Your task to perform on an android device: Go to Maps Image 0: 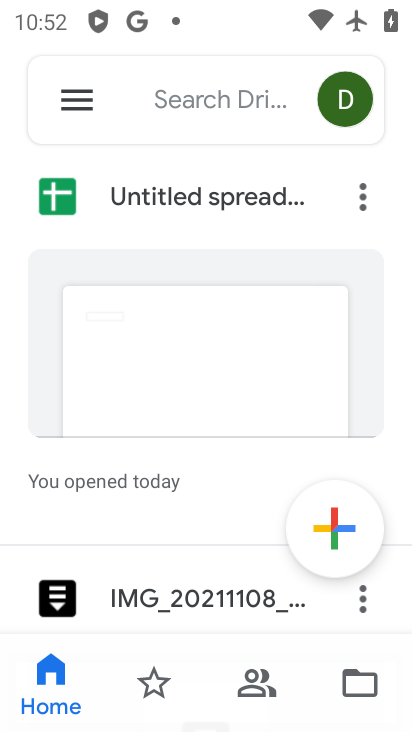
Step 0: press home button
Your task to perform on an android device: Go to Maps Image 1: 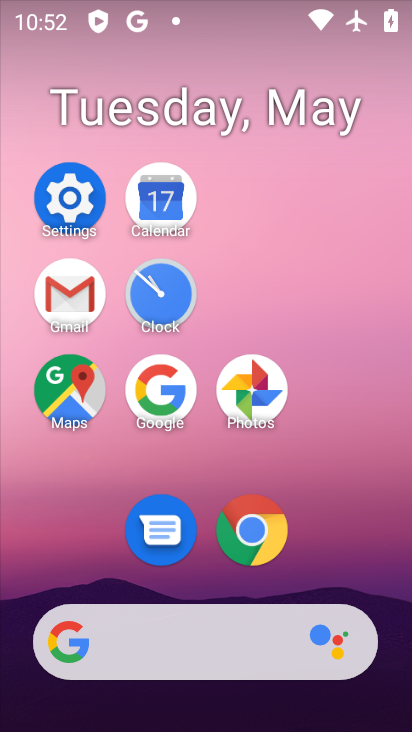
Step 1: click (74, 381)
Your task to perform on an android device: Go to Maps Image 2: 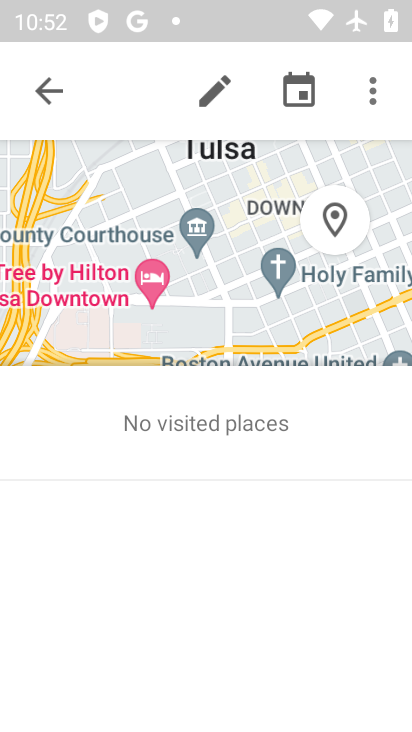
Step 2: task complete